Your task to perform on an android device: turn notification dots on Image 0: 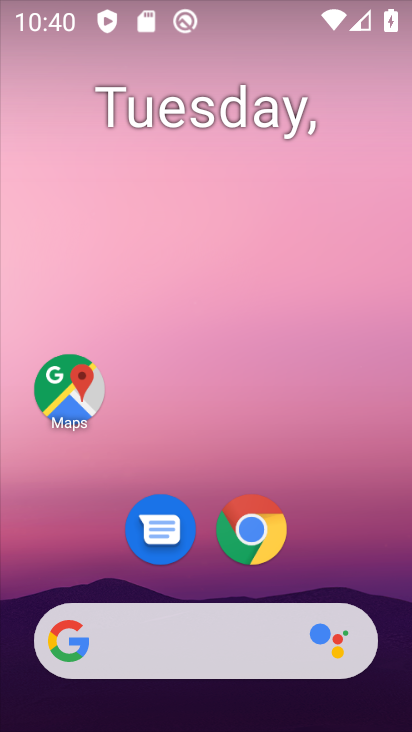
Step 0: drag from (76, 597) to (201, 49)
Your task to perform on an android device: turn notification dots on Image 1: 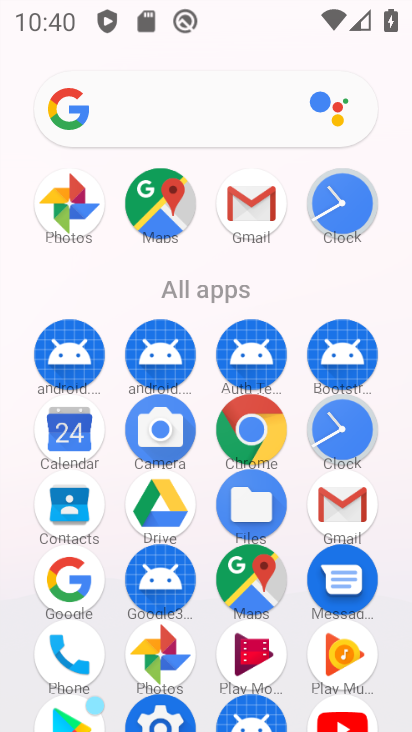
Step 1: drag from (165, 597) to (224, 340)
Your task to perform on an android device: turn notification dots on Image 2: 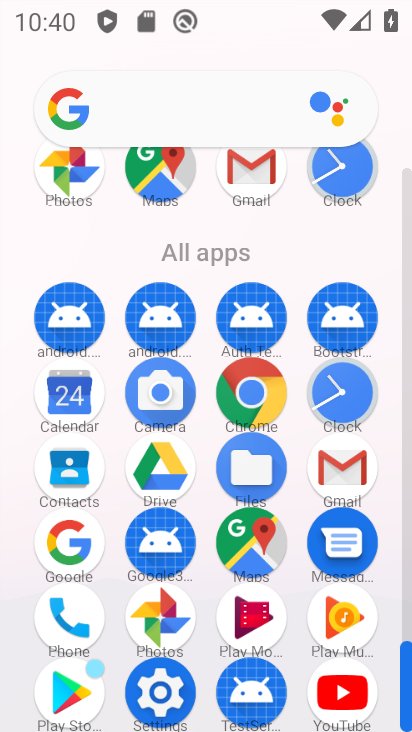
Step 2: click (162, 698)
Your task to perform on an android device: turn notification dots on Image 3: 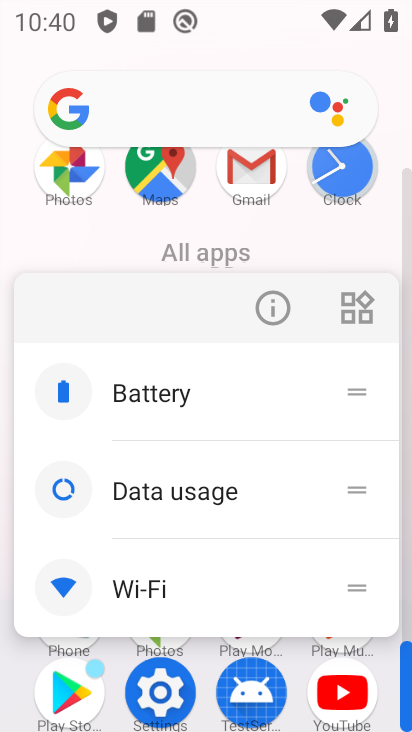
Step 3: click (162, 699)
Your task to perform on an android device: turn notification dots on Image 4: 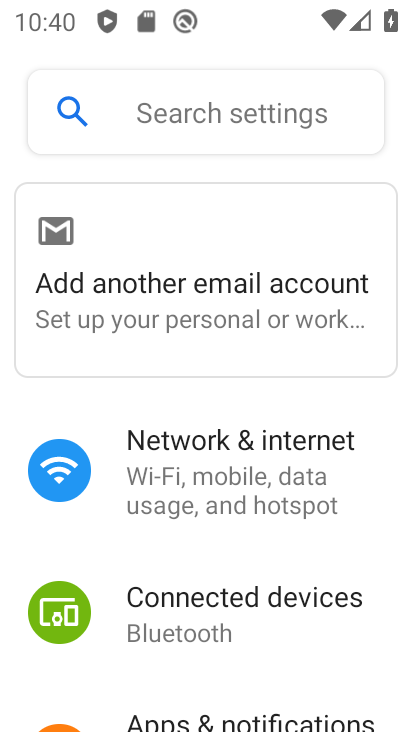
Step 4: drag from (210, 602) to (290, 271)
Your task to perform on an android device: turn notification dots on Image 5: 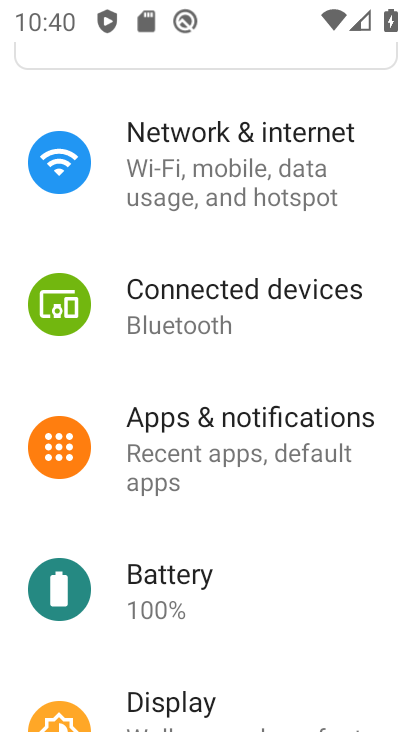
Step 5: click (225, 466)
Your task to perform on an android device: turn notification dots on Image 6: 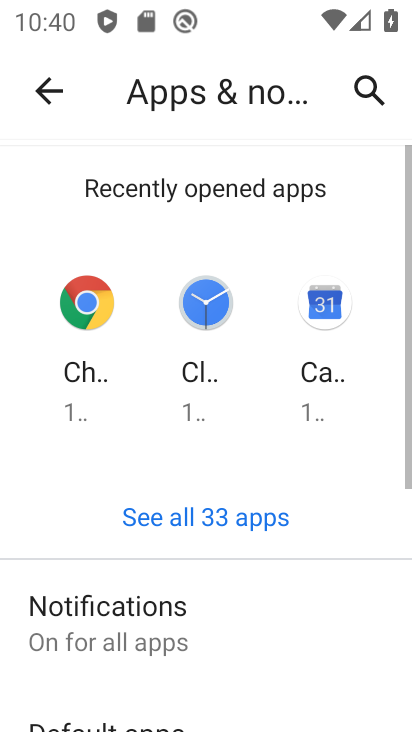
Step 6: drag from (184, 664) to (316, 100)
Your task to perform on an android device: turn notification dots on Image 7: 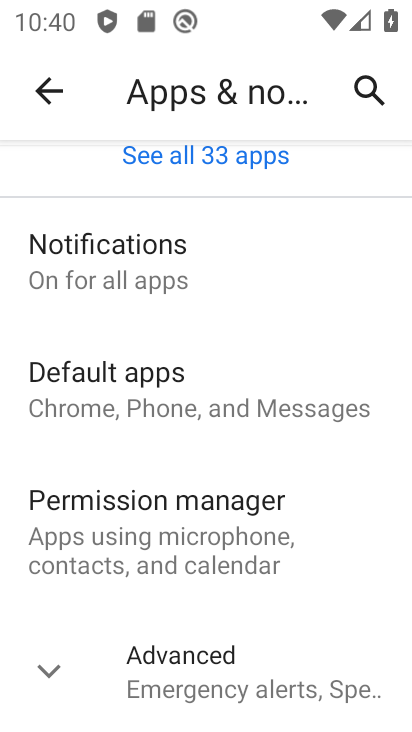
Step 7: click (245, 276)
Your task to perform on an android device: turn notification dots on Image 8: 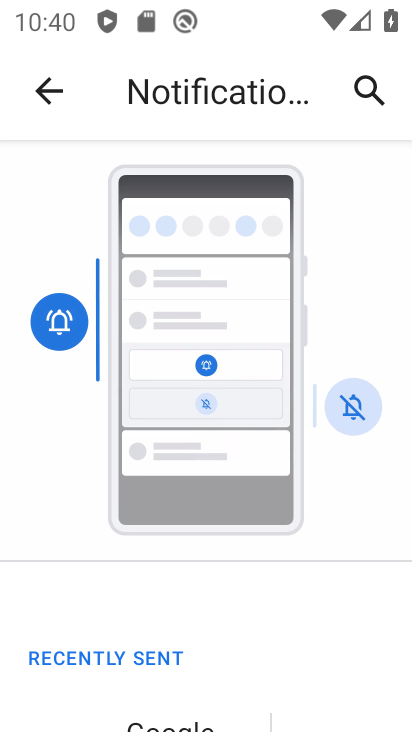
Step 8: drag from (130, 662) to (289, 89)
Your task to perform on an android device: turn notification dots on Image 9: 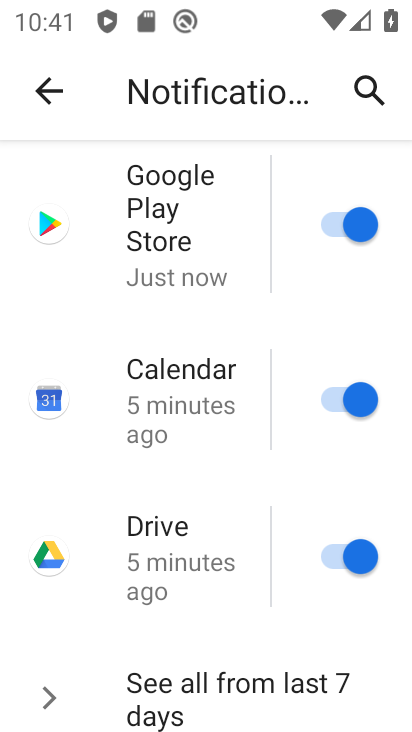
Step 9: drag from (166, 673) to (295, 130)
Your task to perform on an android device: turn notification dots on Image 10: 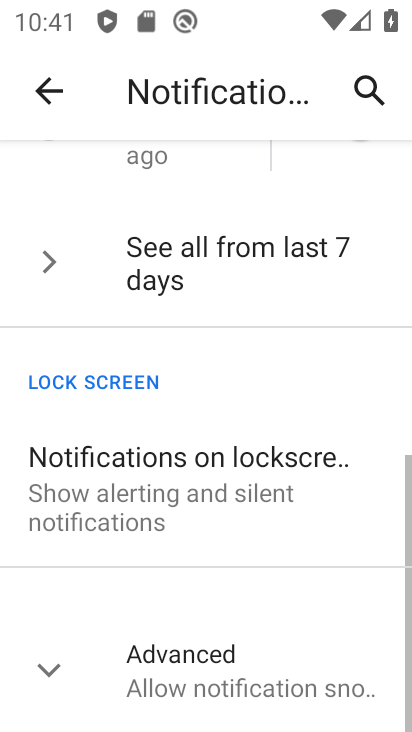
Step 10: drag from (199, 686) to (279, 373)
Your task to perform on an android device: turn notification dots on Image 11: 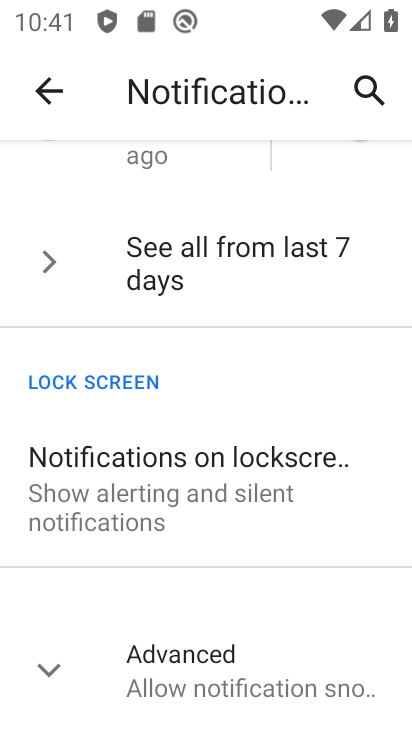
Step 11: click (193, 678)
Your task to perform on an android device: turn notification dots on Image 12: 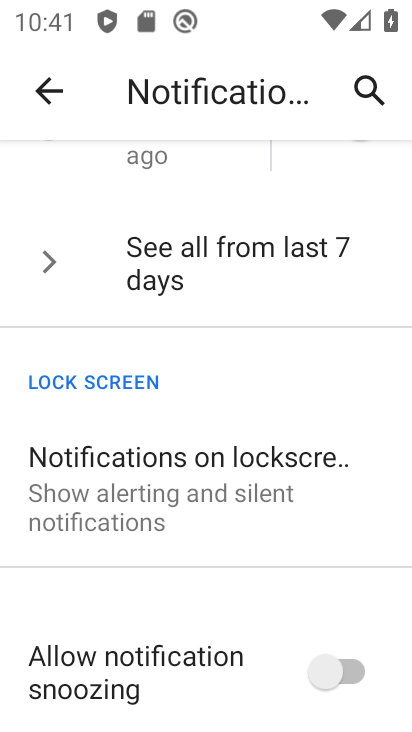
Step 12: task complete